Your task to perform on an android device: Open settings on Google Maps Image 0: 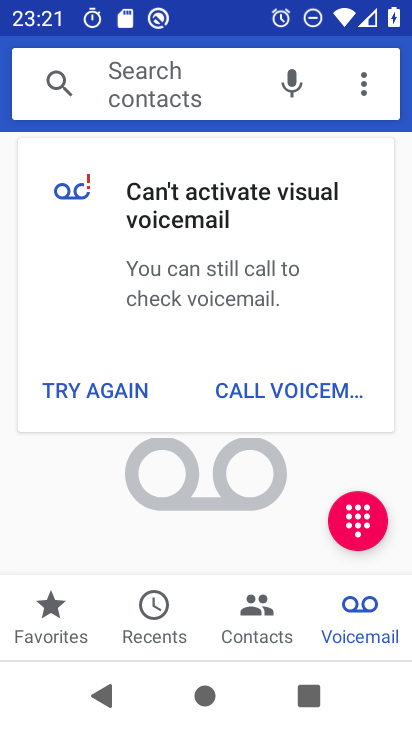
Step 0: press home button
Your task to perform on an android device: Open settings on Google Maps Image 1: 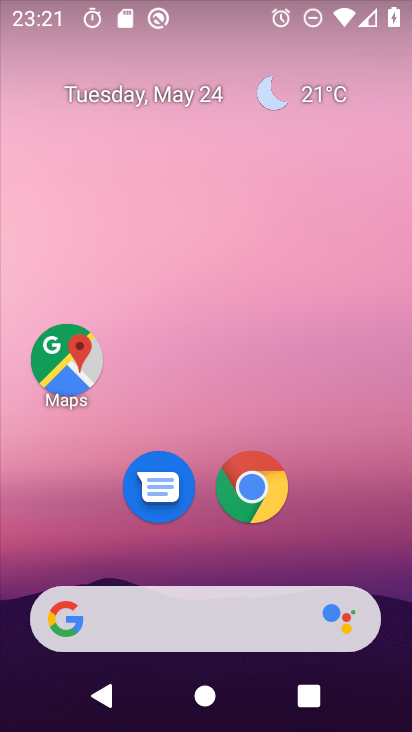
Step 1: drag from (329, 568) to (303, 708)
Your task to perform on an android device: Open settings on Google Maps Image 2: 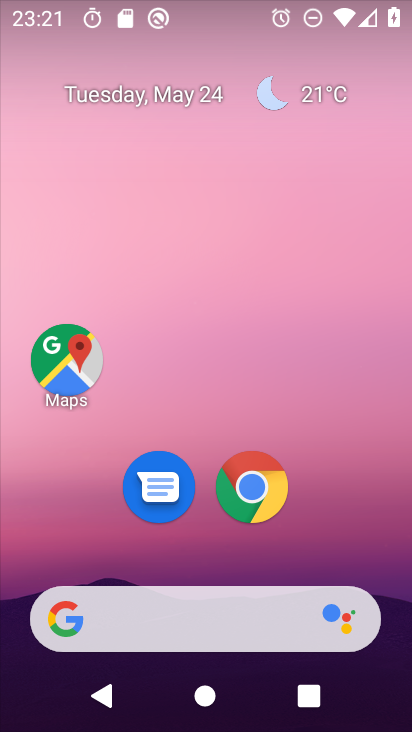
Step 2: click (65, 360)
Your task to perform on an android device: Open settings on Google Maps Image 3: 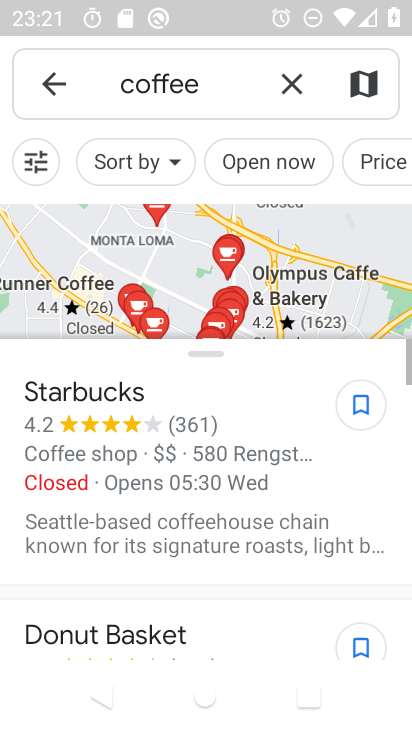
Step 3: click (289, 87)
Your task to perform on an android device: Open settings on Google Maps Image 4: 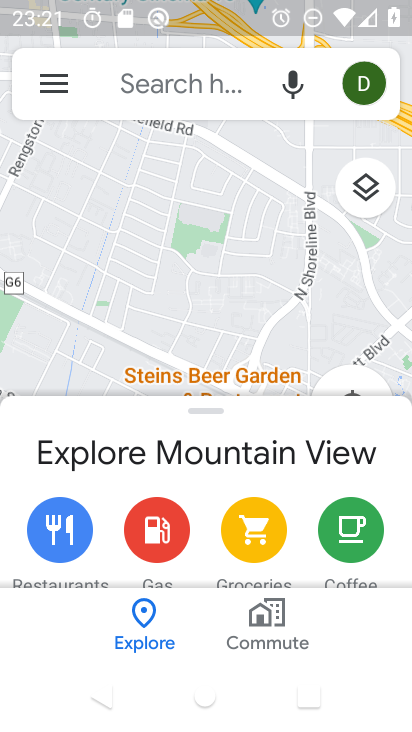
Step 4: click (51, 90)
Your task to perform on an android device: Open settings on Google Maps Image 5: 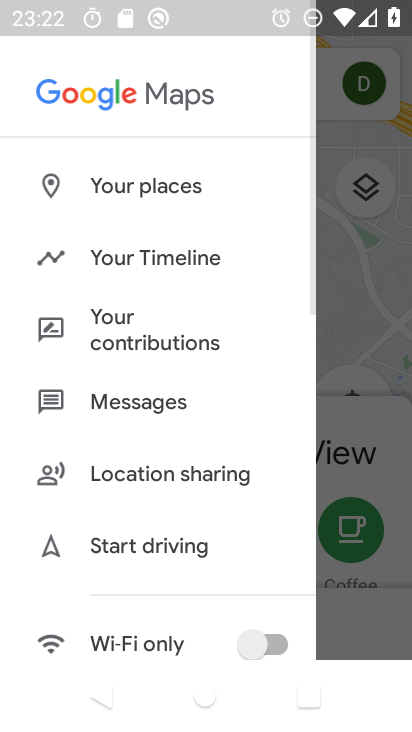
Step 5: drag from (135, 597) to (145, 33)
Your task to perform on an android device: Open settings on Google Maps Image 6: 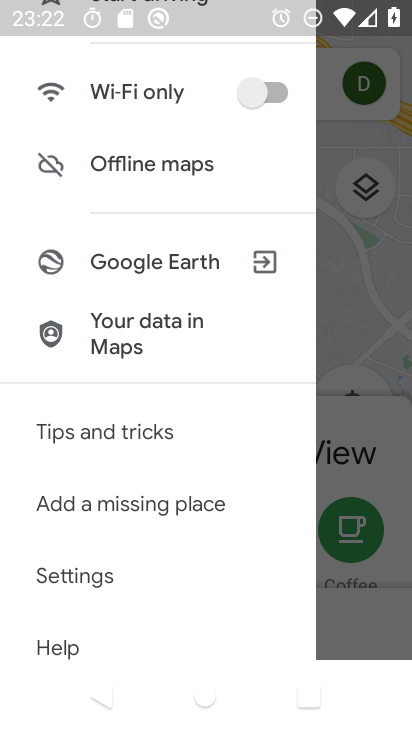
Step 6: click (81, 576)
Your task to perform on an android device: Open settings on Google Maps Image 7: 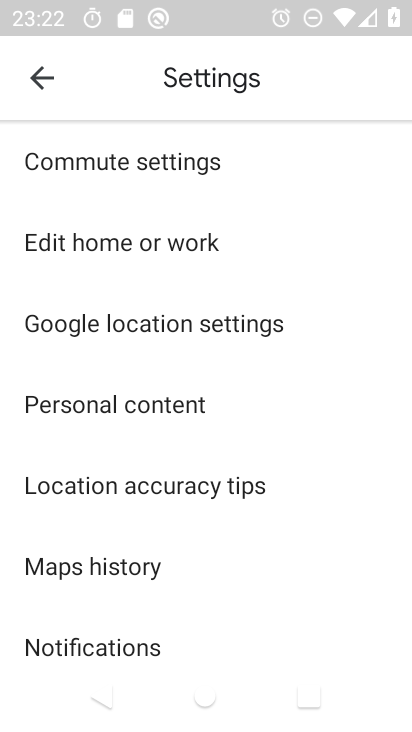
Step 7: task complete